Your task to perform on an android device: Open wifi settings Image 0: 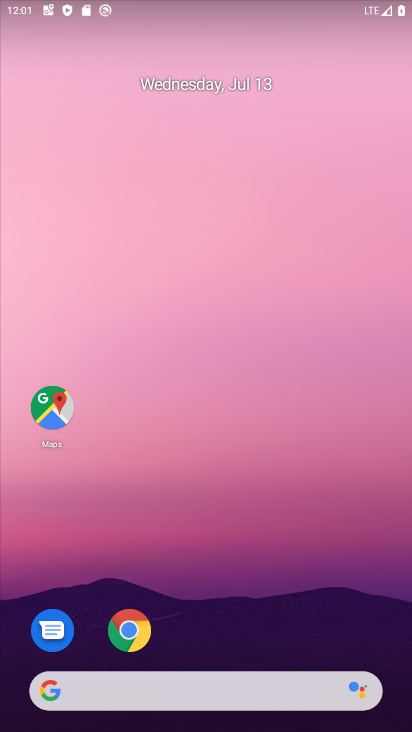
Step 0: drag from (401, 681) to (230, 94)
Your task to perform on an android device: Open wifi settings Image 1: 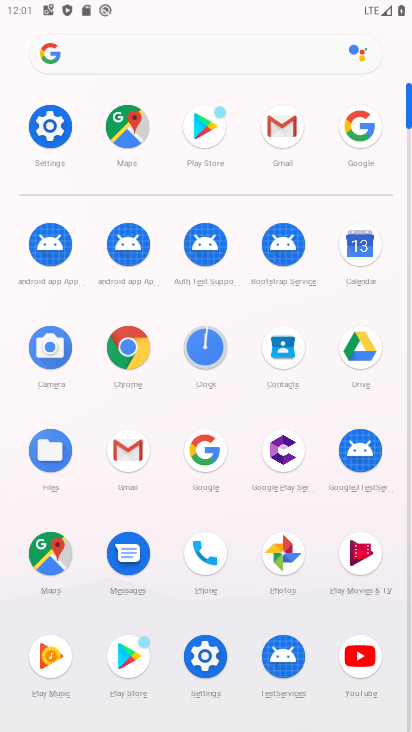
Step 1: click (195, 659)
Your task to perform on an android device: Open wifi settings Image 2: 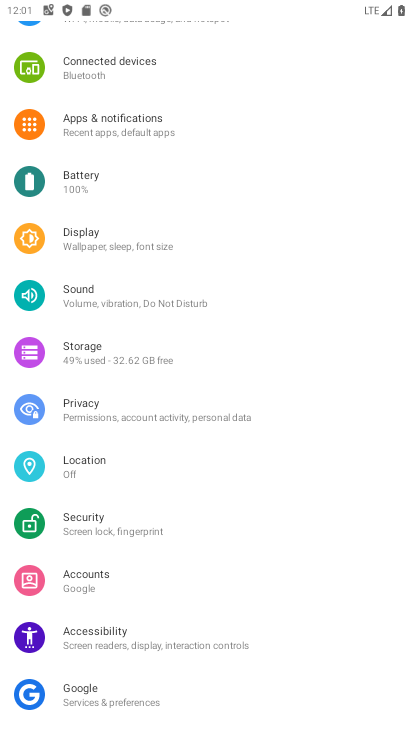
Step 2: drag from (181, 46) to (272, 674)
Your task to perform on an android device: Open wifi settings Image 3: 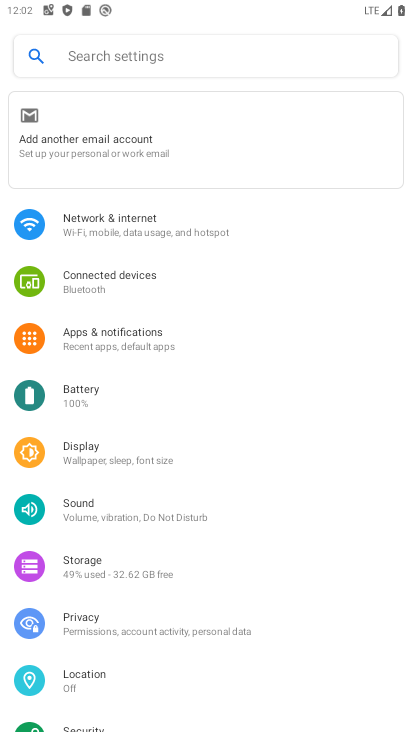
Step 3: click (184, 220)
Your task to perform on an android device: Open wifi settings Image 4: 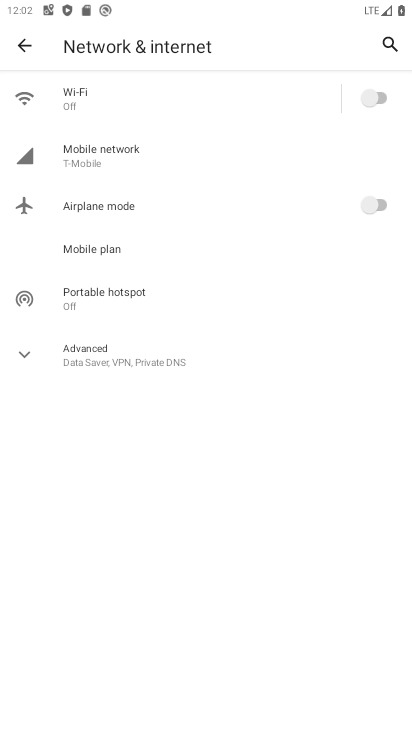
Step 4: click (153, 93)
Your task to perform on an android device: Open wifi settings Image 5: 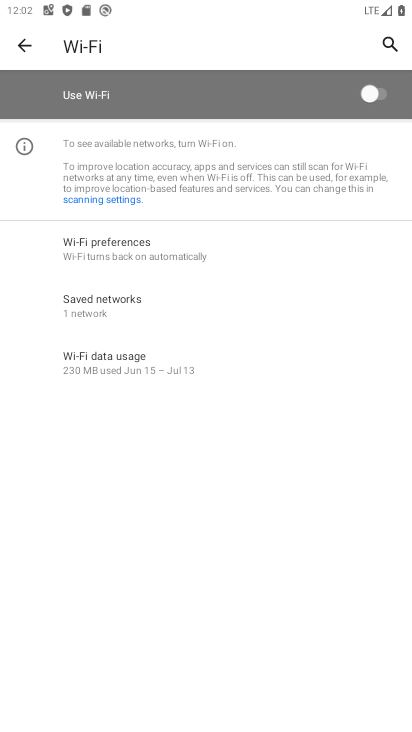
Step 5: task complete